Your task to perform on an android device: open app "PlayWell" (install if not already installed) Image 0: 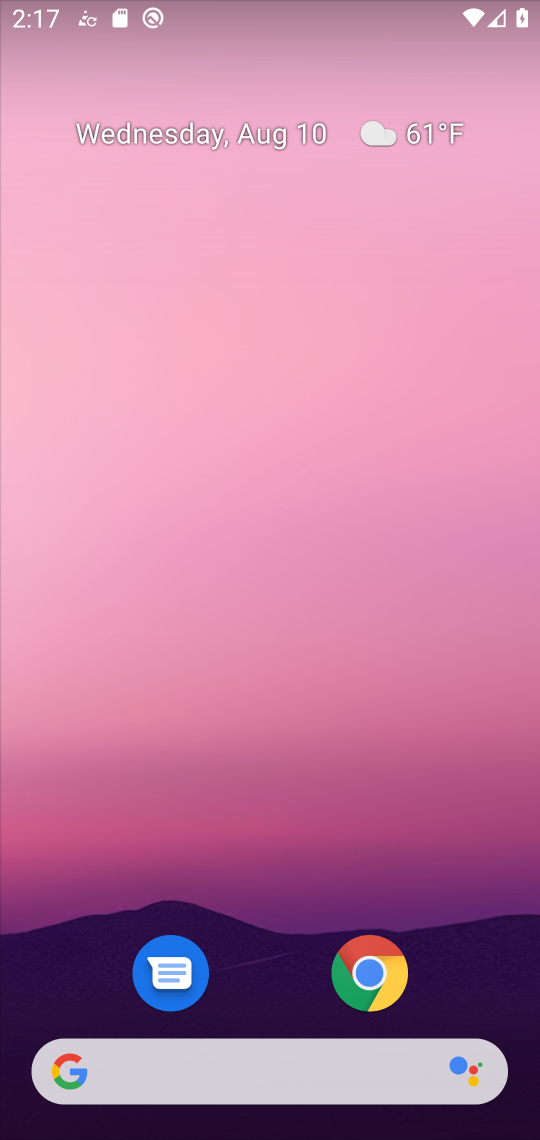
Step 0: drag from (278, 991) to (267, 222)
Your task to perform on an android device: open app "PlayWell" (install if not already installed) Image 1: 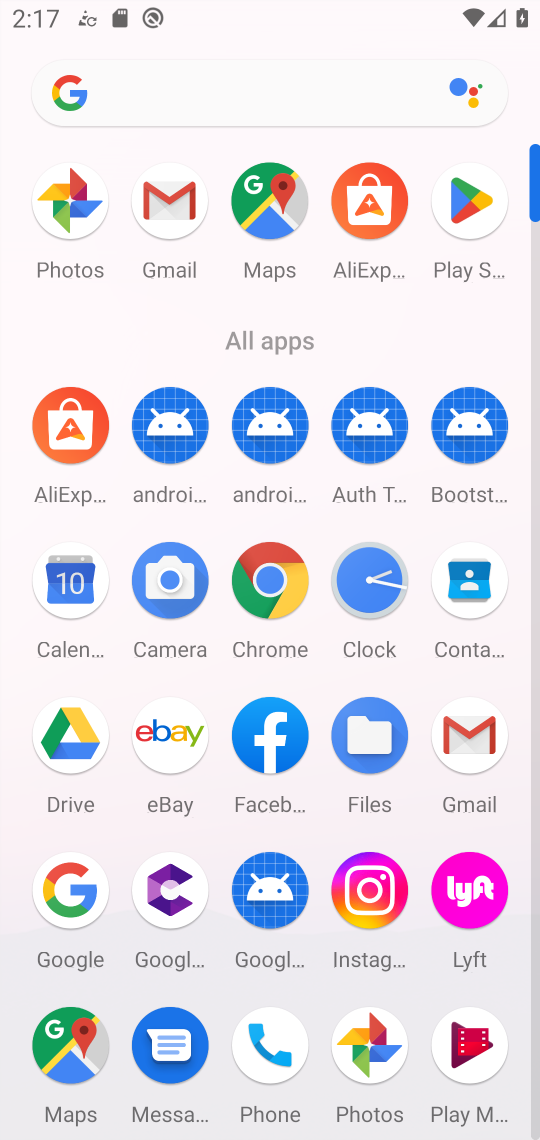
Step 1: click (456, 180)
Your task to perform on an android device: open app "PlayWell" (install if not already installed) Image 2: 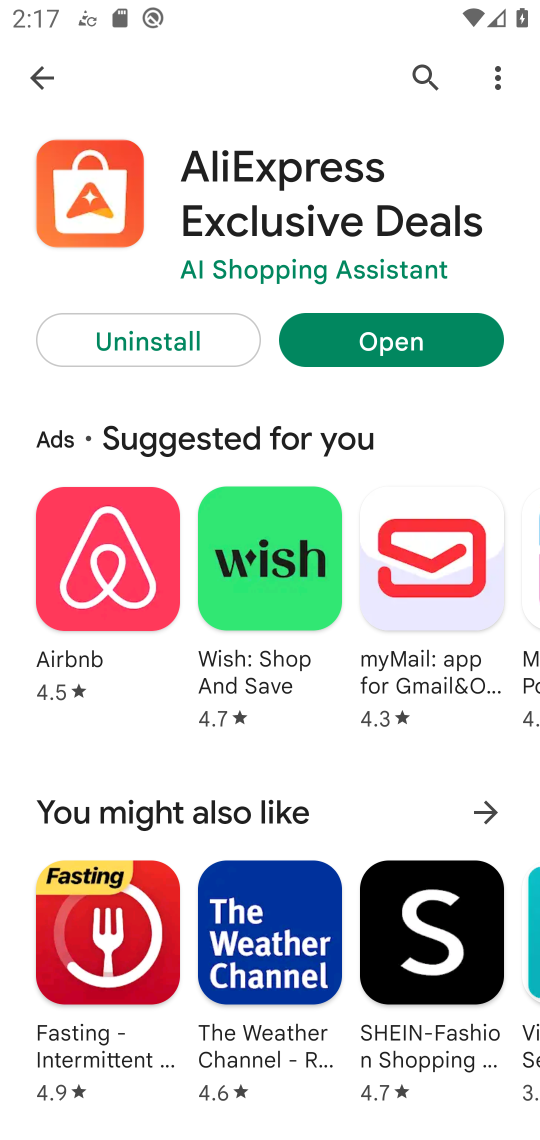
Step 2: click (35, 76)
Your task to perform on an android device: open app "PlayWell" (install if not already installed) Image 3: 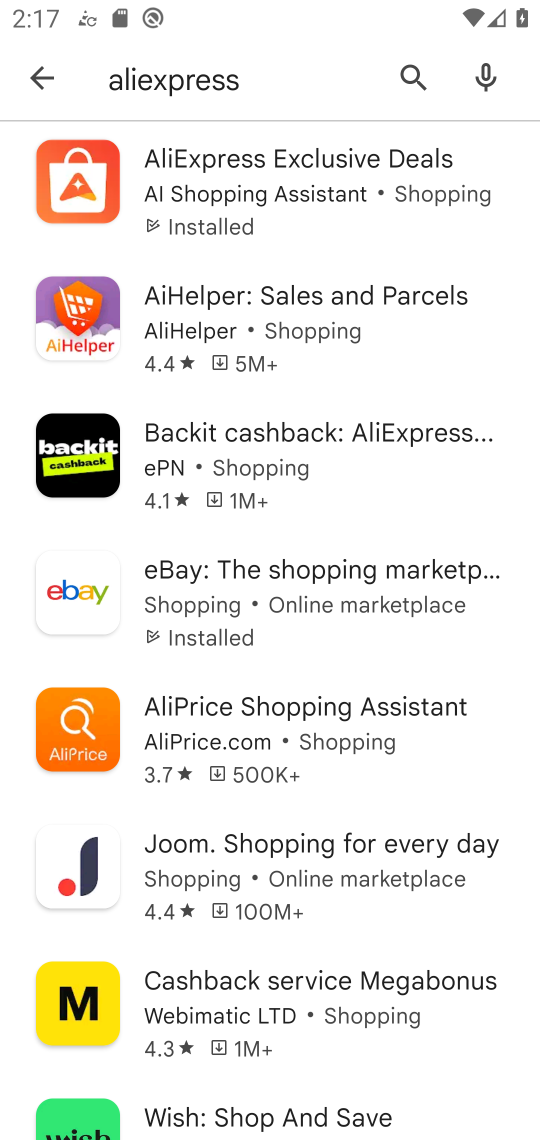
Step 3: click (55, 58)
Your task to perform on an android device: open app "PlayWell" (install if not already installed) Image 4: 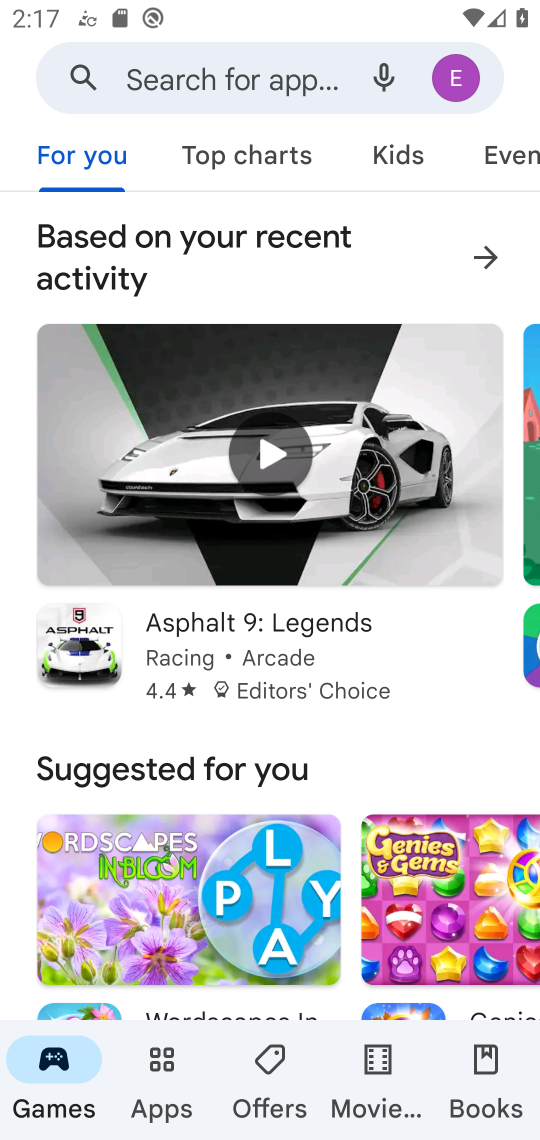
Step 4: click (188, 56)
Your task to perform on an android device: open app "PlayWell" (install if not already installed) Image 5: 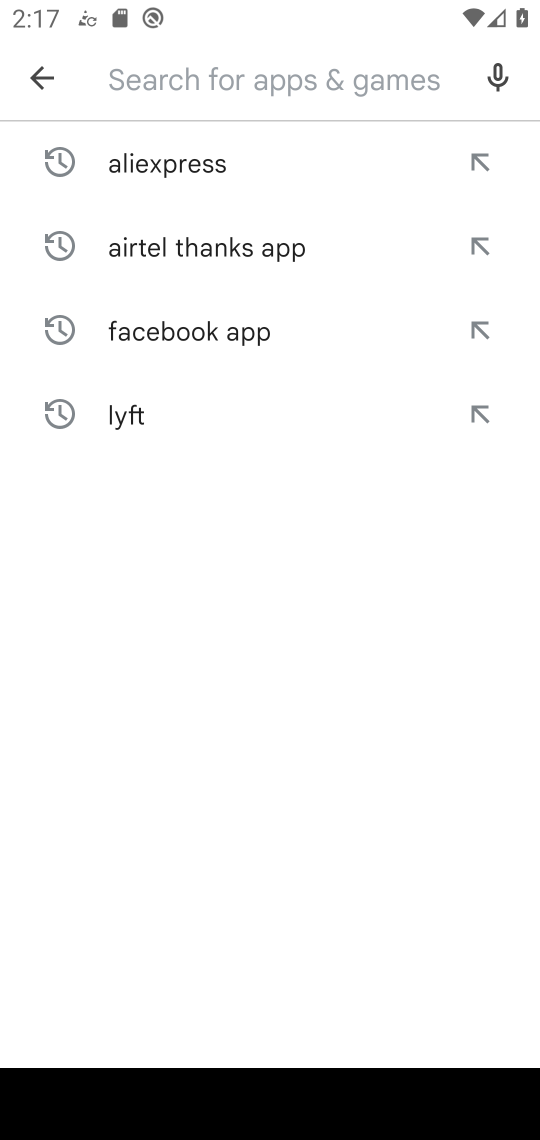
Step 5: click (321, 79)
Your task to perform on an android device: open app "PlayWell" (install if not already installed) Image 6: 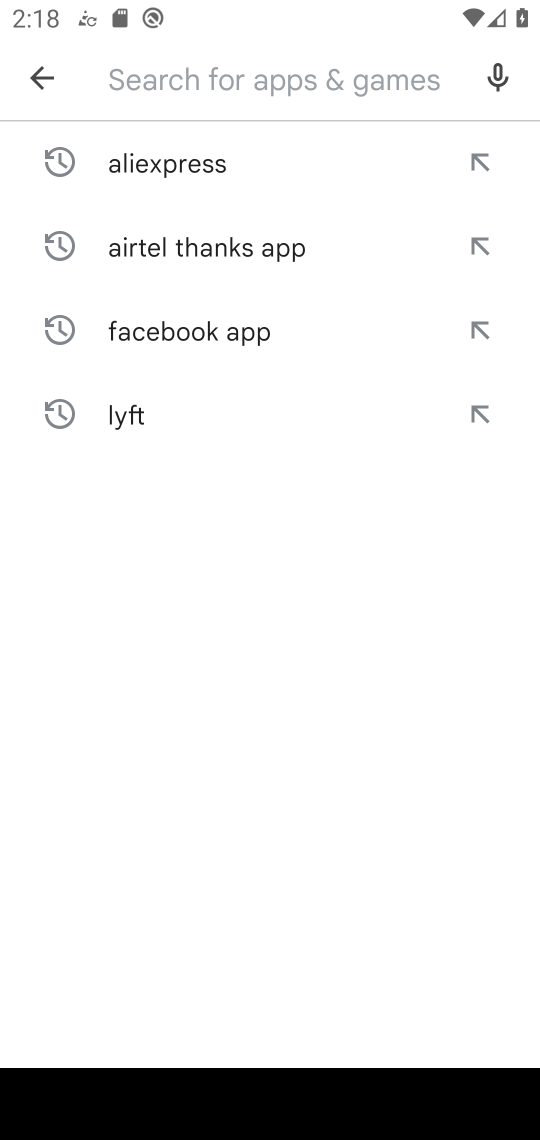
Step 6: type "playwell "
Your task to perform on an android device: open app "PlayWell" (install if not already installed) Image 7: 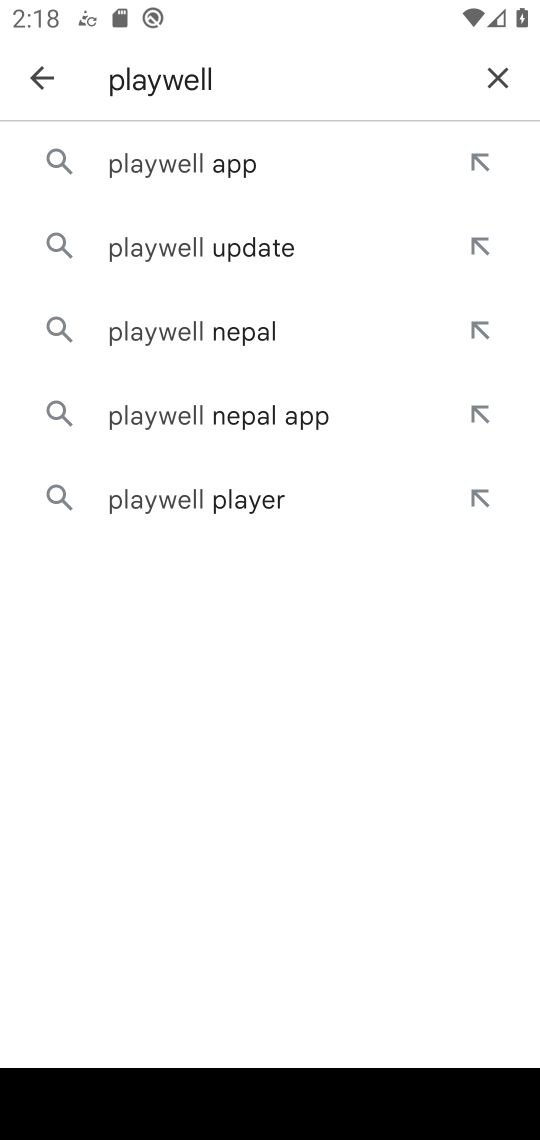
Step 7: click (236, 156)
Your task to perform on an android device: open app "PlayWell" (install if not already installed) Image 8: 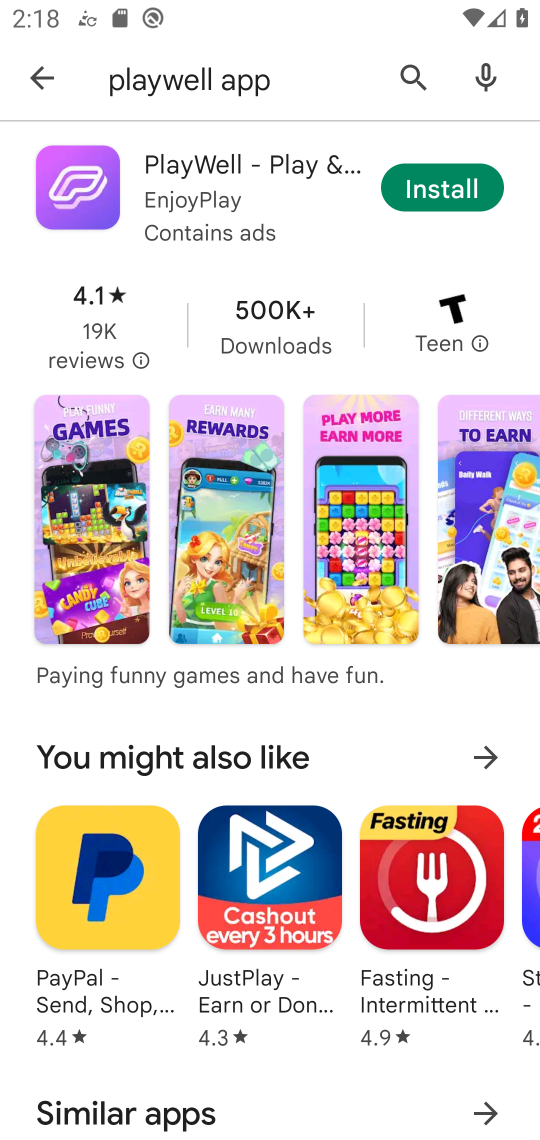
Step 8: click (466, 193)
Your task to perform on an android device: open app "PlayWell" (install if not already installed) Image 9: 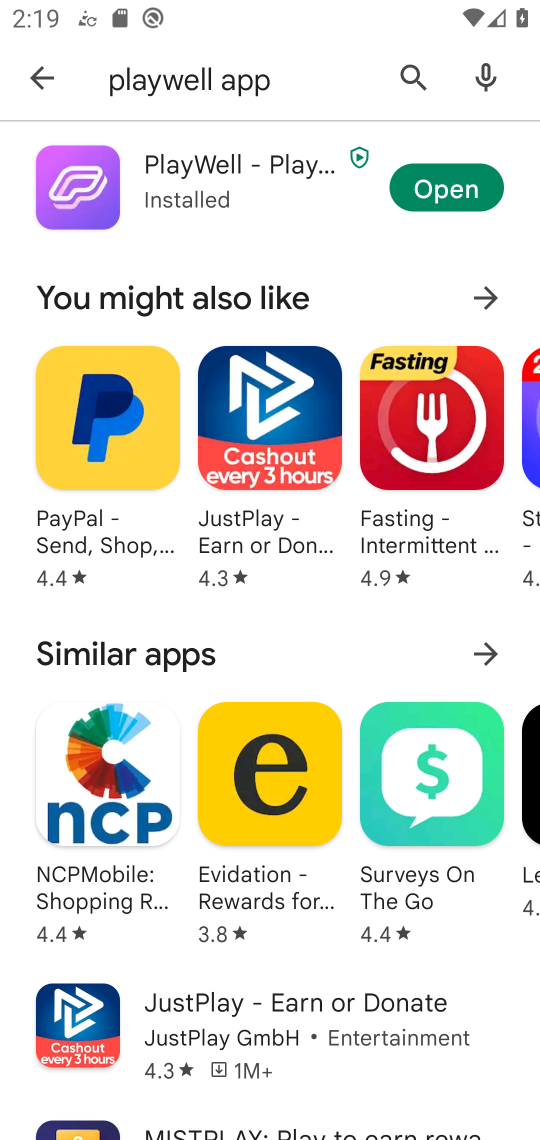
Step 9: click (440, 168)
Your task to perform on an android device: open app "PlayWell" (install if not already installed) Image 10: 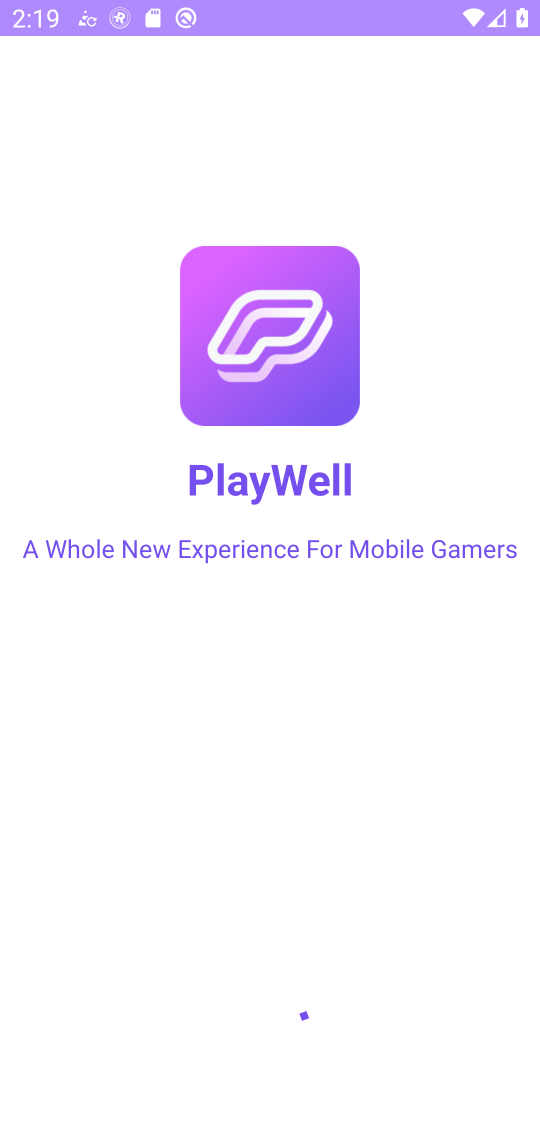
Step 10: task complete